Your task to perform on an android device: turn off translation in the chrome app Image 0: 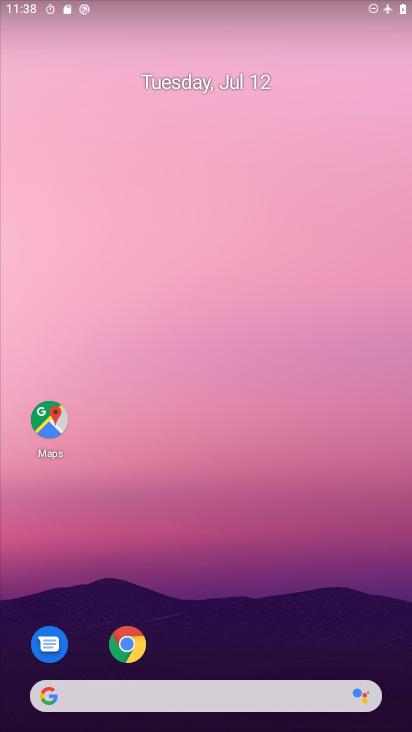
Step 0: click (137, 653)
Your task to perform on an android device: turn off translation in the chrome app Image 1: 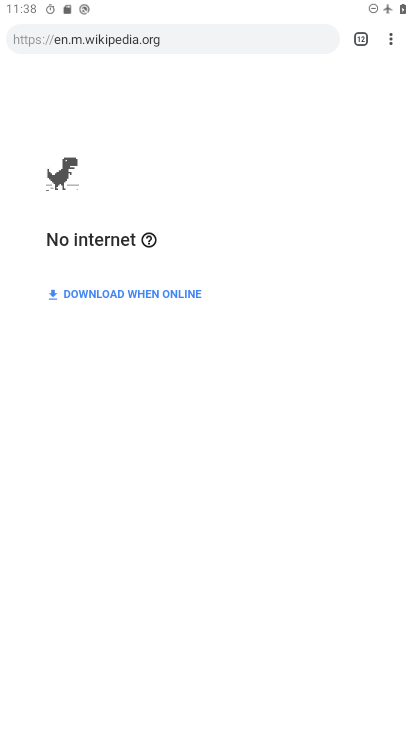
Step 1: click (397, 42)
Your task to perform on an android device: turn off translation in the chrome app Image 2: 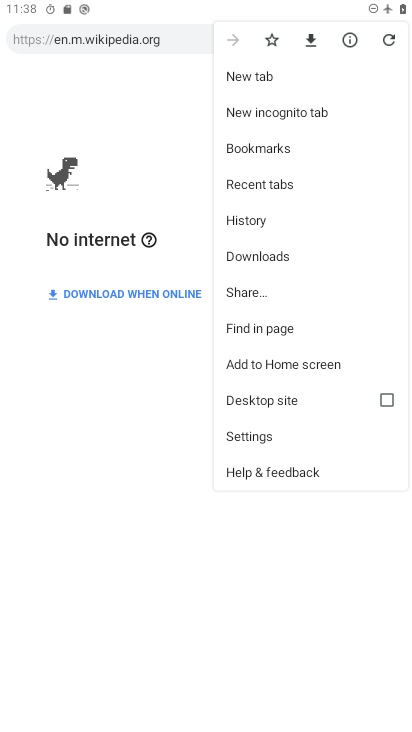
Step 2: click (274, 442)
Your task to perform on an android device: turn off translation in the chrome app Image 3: 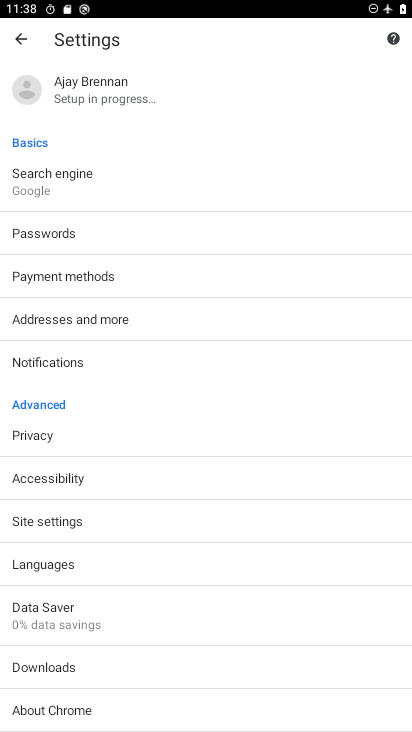
Step 3: click (97, 559)
Your task to perform on an android device: turn off translation in the chrome app Image 4: 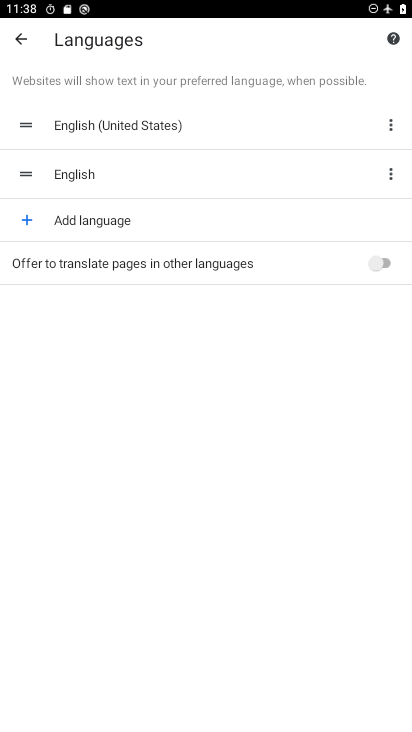
Step 4: task complete